Your task to perform on an android device: When is my next meeting? Image 0: 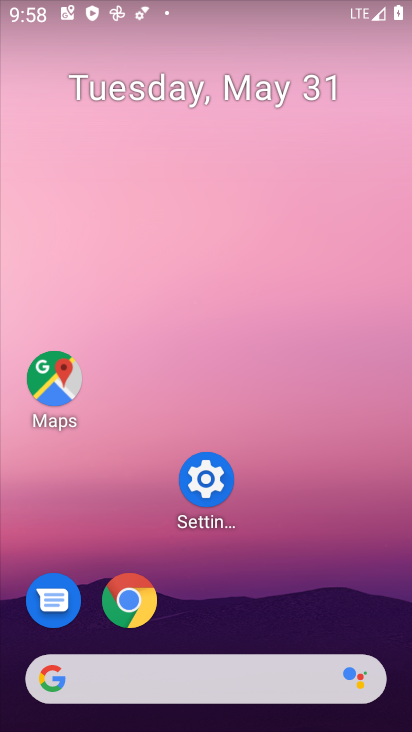
Step 0: drag from (279, 711) to (285, 424)
Your task to perform on an android device: When is my next meeting? Image 1: 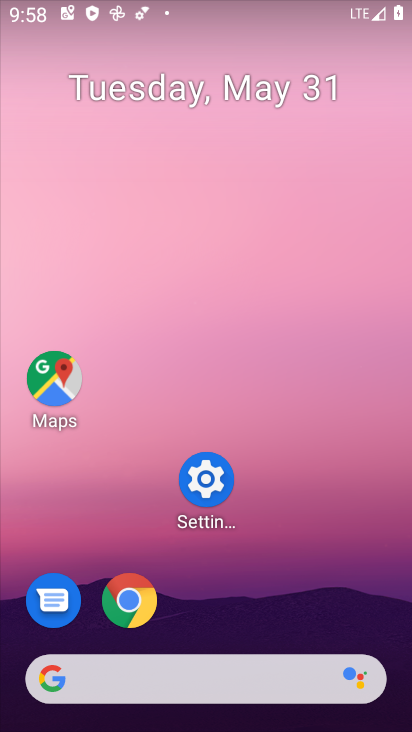
Step 1: drag from (180, 717) to (242, 2)
Your task to perform on an android device: When is my next meeting? Image 2: 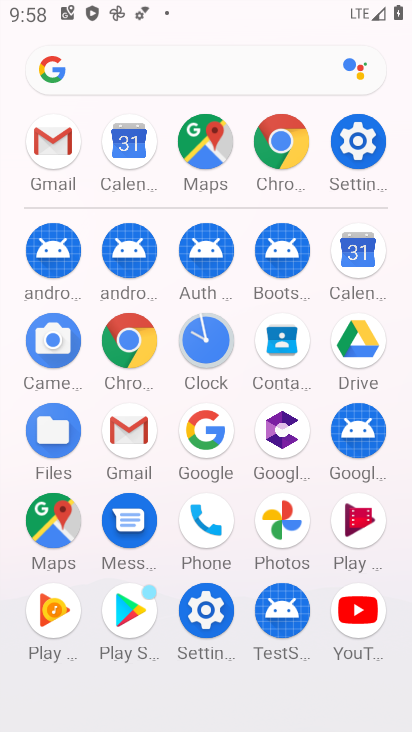
Step 2: click (356, 257)
Your task to perform on an android device: When is my next meeting? Image 3: 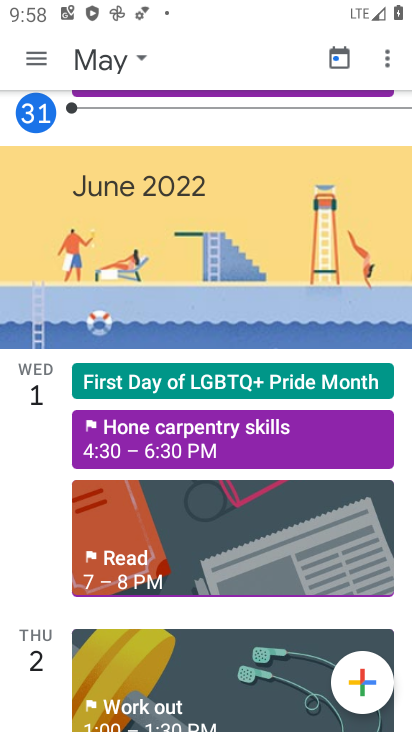
Step 3: click (26, 63)
Your task to perform on an android device: When is my next meeting? Image 4: 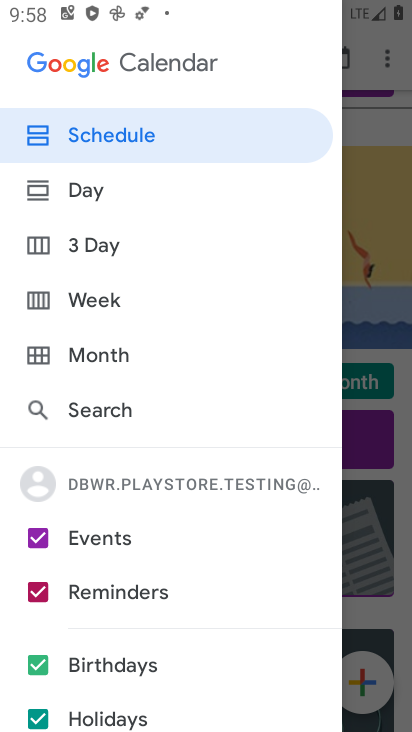
Step 4: click (132, 147)
Your task to perform on an android device: When is my next meeting? Image 5: 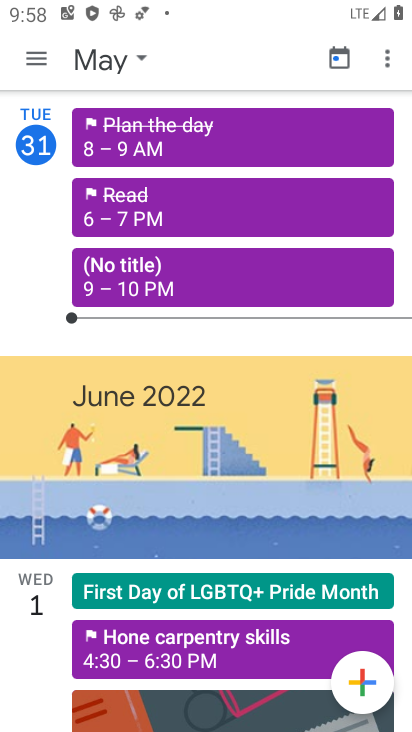
Step 5: task complete